Your task to perform on an android device: open the mobile data screen to see how much data has been used Image 0: 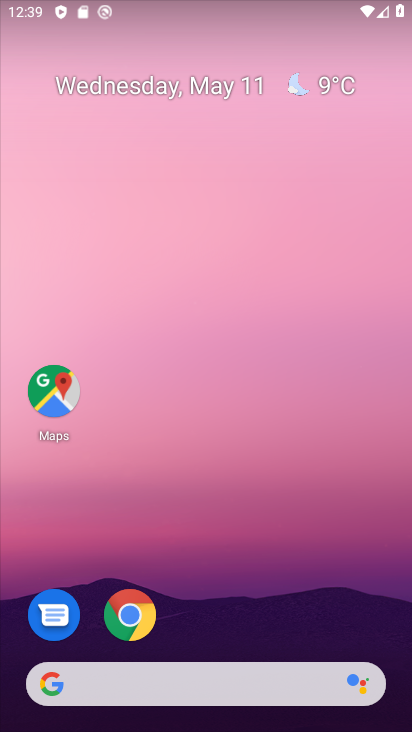
Step 0: drag from (268, 601) to (300, 35)
Your task to perform on an android device: open the mobile data screen to see how much data has been used Image 1: 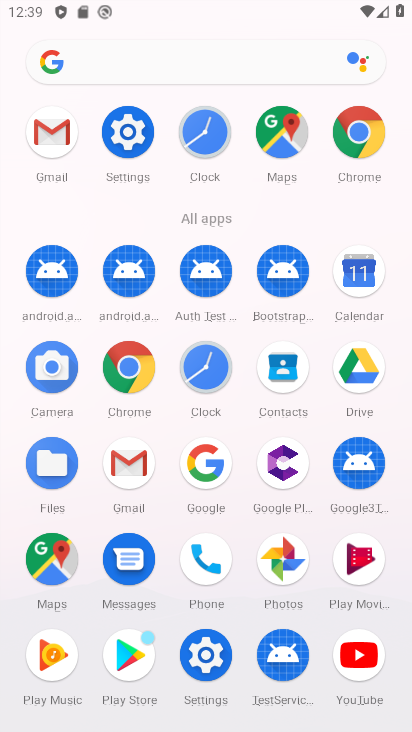
Step 1: click (139, 141)
Your task to perform on an android device: open the mobile data screen to see how much data has been used Image 2: 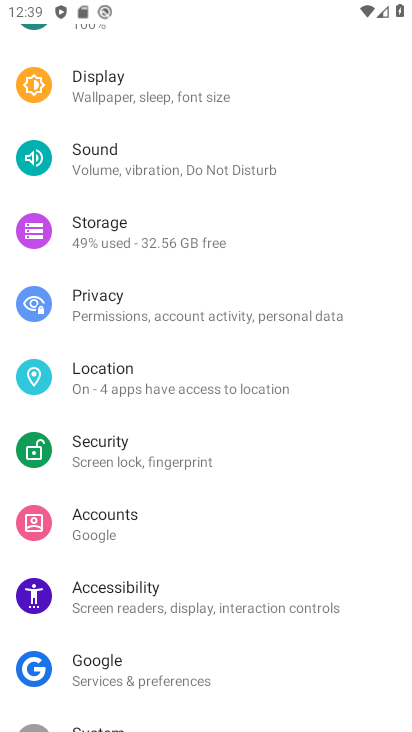
Step 2: drag from (214, 174) to (284, 674)
Your task to perform on an android device: open the mobile data screen to see how much data has been used Image 3: 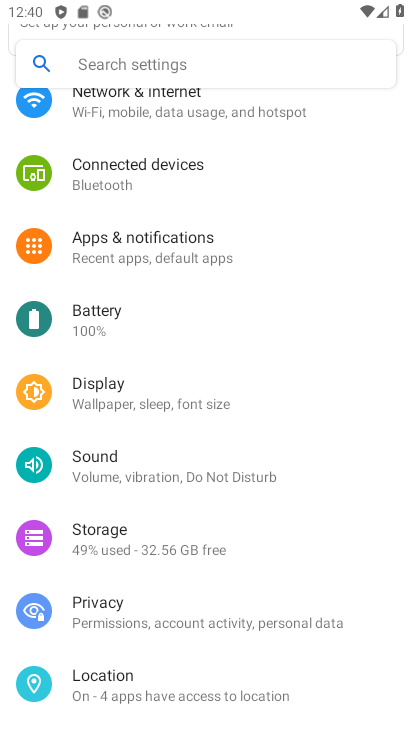
Step 3: drag from (277, 351) to (169, 695)
Your task to perform on an android device: open the mobile data screen to see how much data has been used Image 4: 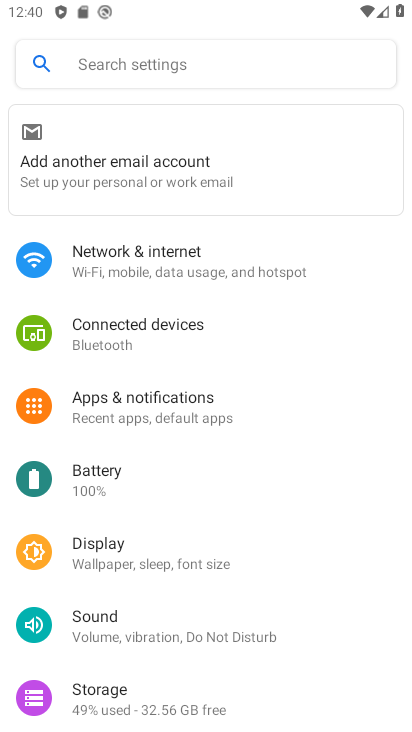
Step 4: click (200, 249)
Your task to perform on an android device: open the mobile data screen to see how much data has been used Image 5: 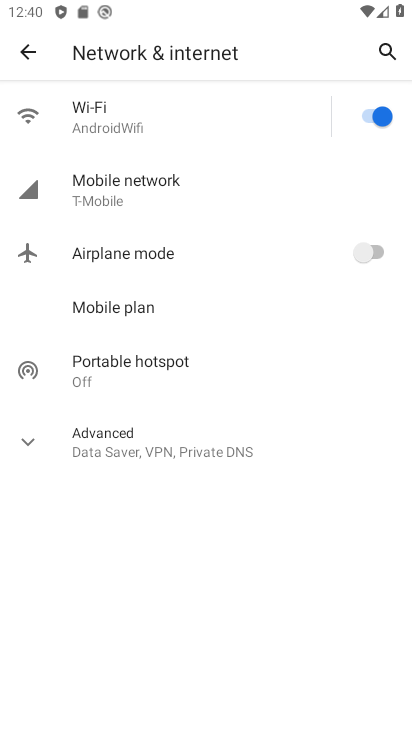
Step 5: click (206, 166)
Your task to perform on an android device: open the mobile data screen to see how much data has been used Image 6: 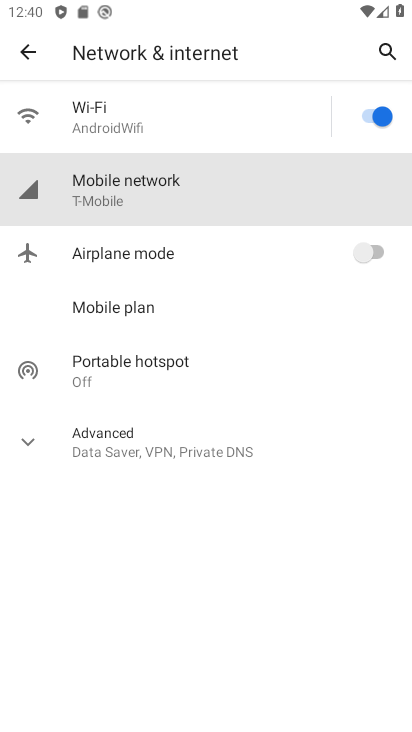
Step 6: task complete